Your task to perform on an android device: Open accessibility settings Image 0: 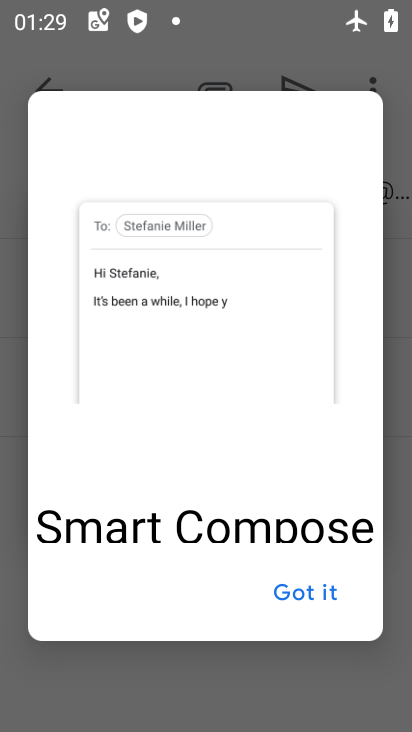
Step 0: press home button
Your task to perform on an android device: Open accessibility settings Image 1: 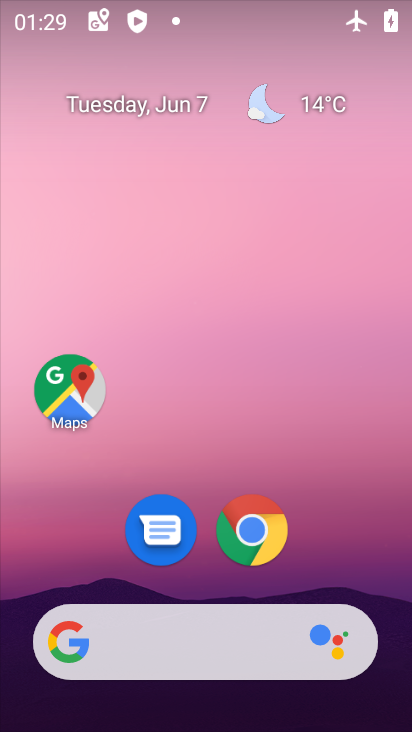
Step 1: drag from (324, 551) to (306, 192)
Your task to perform on an android device: Open accessibility settings Image 2: 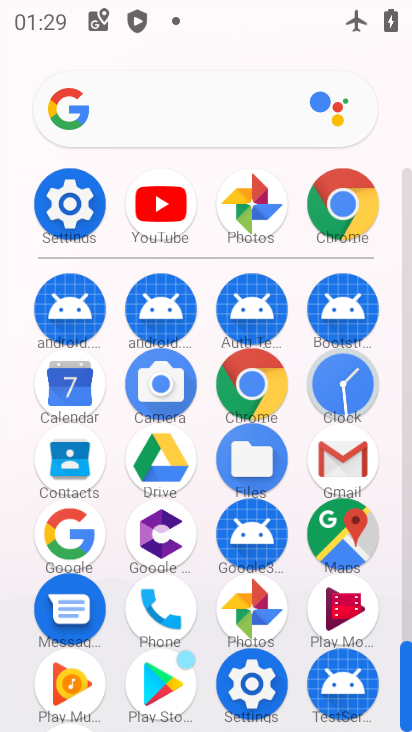
Step 2: click (62, 198)
Your task to perform on an android device: Open accessibility settings Image 3: 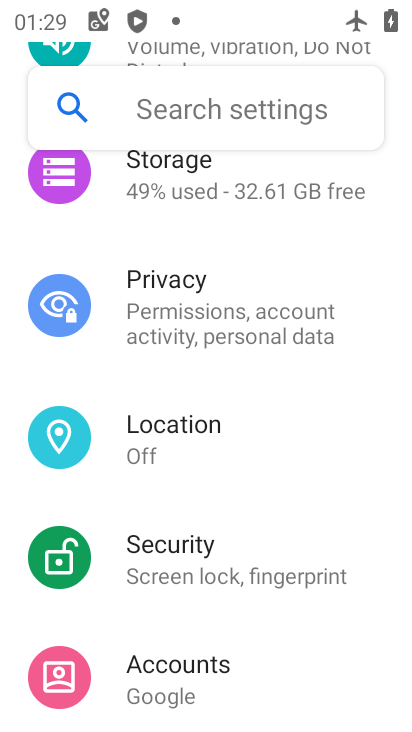
Step 3: drag from (191, 651) to (175, 362)
Your task to perform on an android device: Open accessibility settings Image 4: 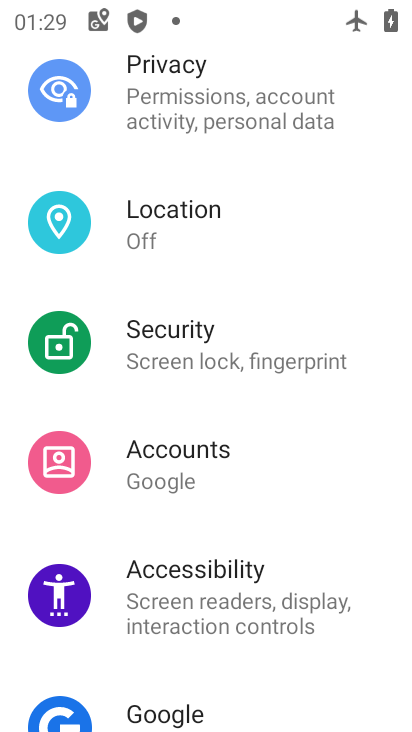
Step 4: click (202, 609)
Your task to perform on an android device: Open accessibility settings Image 5: 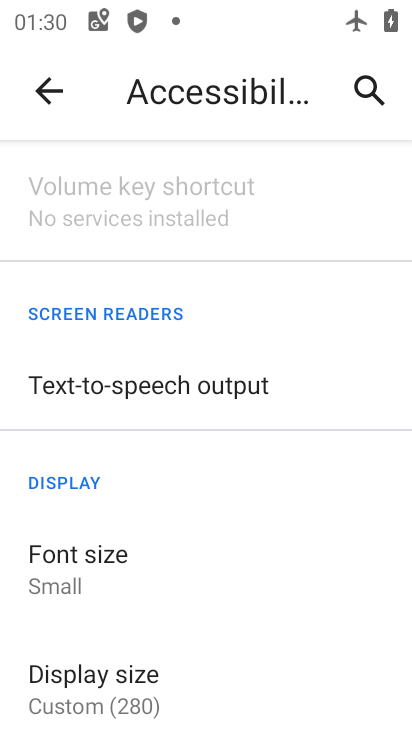
Step 5: task complete